Your task to perform on an android device: turn off translation in the chrome app Image 0: 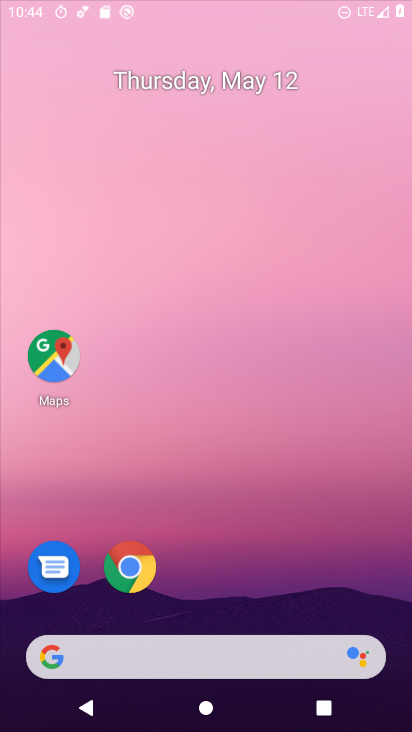
Step 0: click (224, 171)
Your task to perform on an android device: turn off translation in the chrome app Image 1: 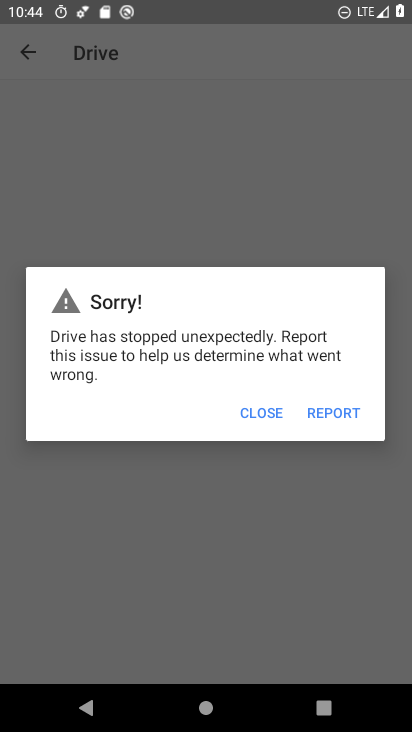
Step 1: press home button
Your task to perform on an android device: turn off translation in the chrome app Image 2: 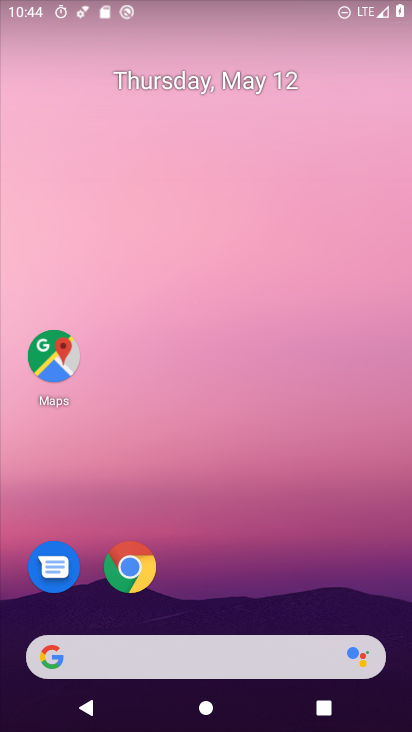
Step 2: drag from (234, 629) to (242, 267)
Your task to perform on an android device: turn off translation in the chrome app Image 3: 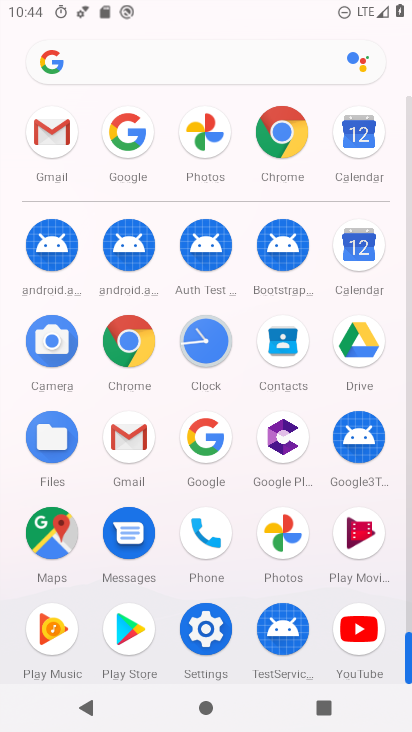
Step 3: click (277, 166)
Your task to perform on an android device: turn off translation in the chrome app Image 4: 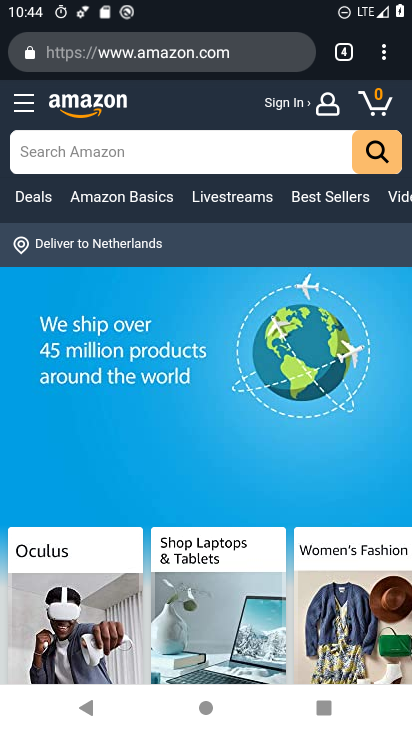
Step 4: click (389, 64)
Your task to perform on an android device: turn off translation in the chrome app Image 5: 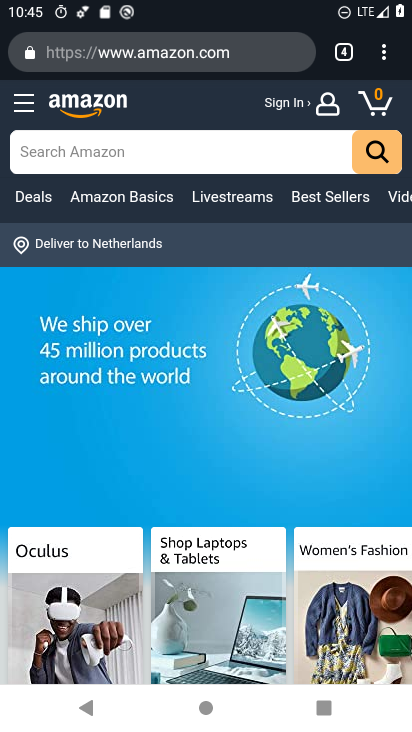
Step 5: click (396, 51)
Your task to perform on an android device: turn off translation in the chrome app Image 6: 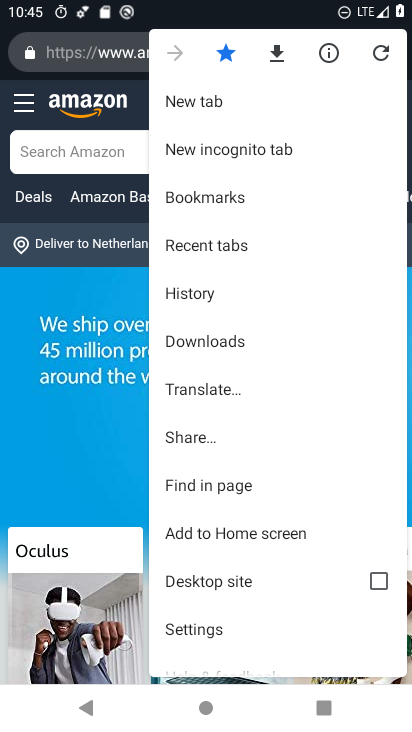
Step 6: click (223, 628)
Your task to perform on an android device: turn off translation in the chrome app Image 7: 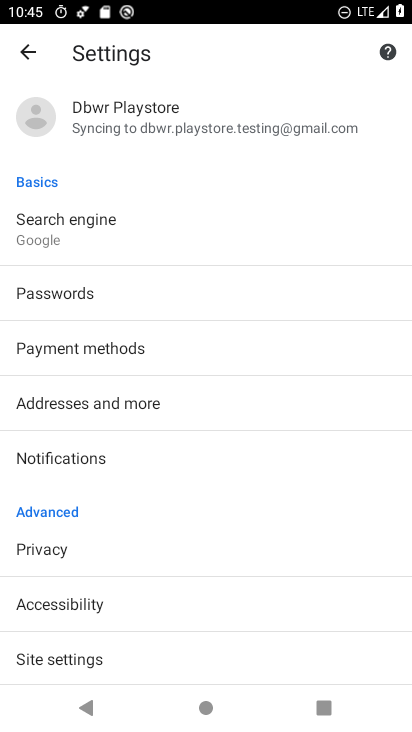
Step 7: task complete